Your task to perform on an android device: Go to sound settings Image 0: 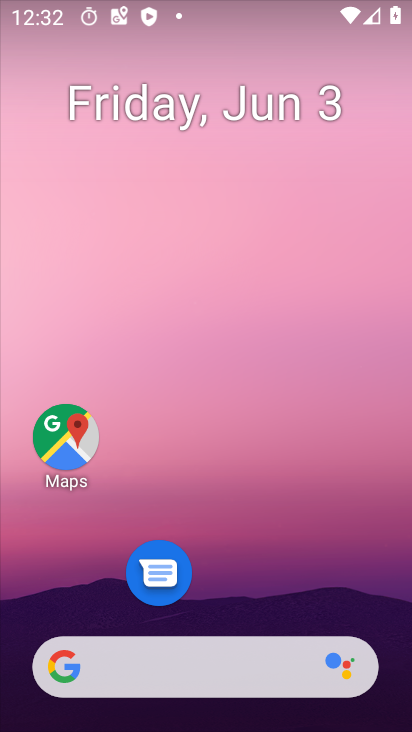
Step 0: drag from (303, 613) to (325, 113)
Your task to perform on an android device: Go to sound settings Image 1: 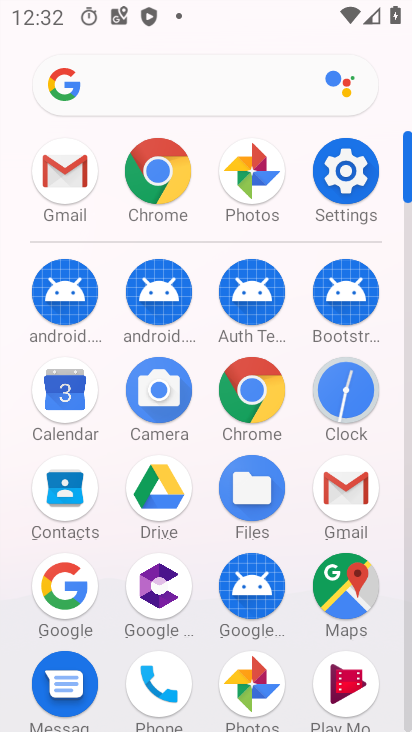
Step 1: click (342, 192)
Your task to perform on an android device: Go to sound settings Image 2: 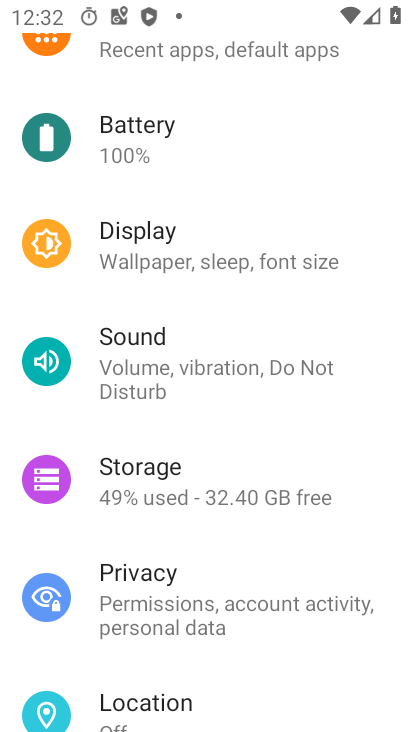
Step 2: click (291, 354)
Your task to perform on an android device: Go to sound settings Image 3: 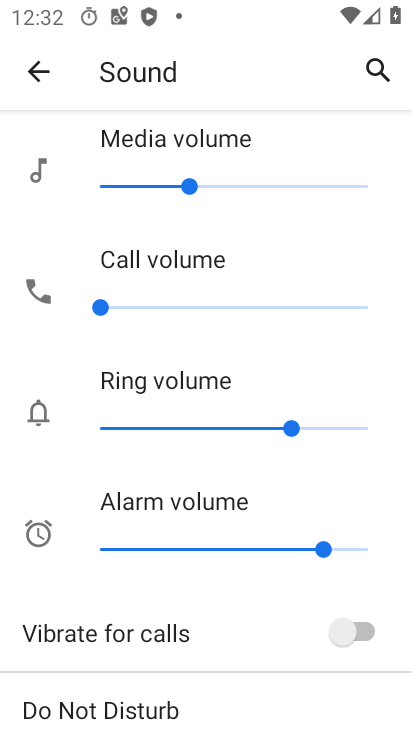
Step 3: task complete